Your task to perform on an android device: empty trash in google photos Image 0: 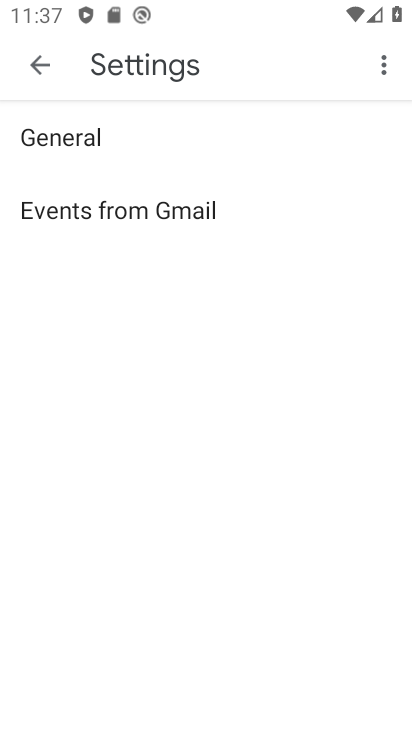
Step 0: press home button
Your task to perform on an android device: empty trash in google photos Image 1: 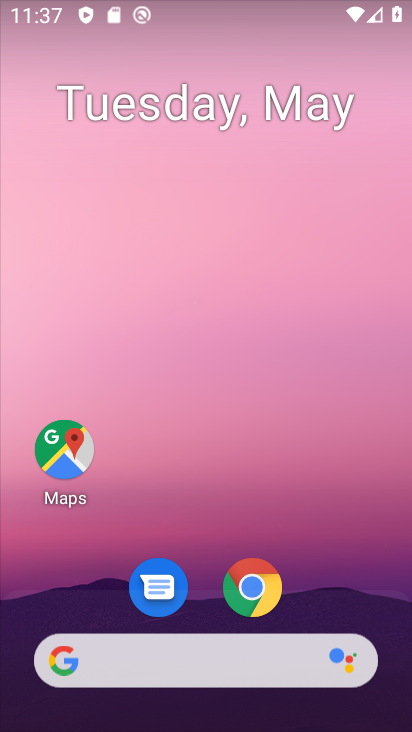
Step 1: drag from (200, 588) to (203, 9)
Your task to perform on an android device: empty trash in google photos Image 2: 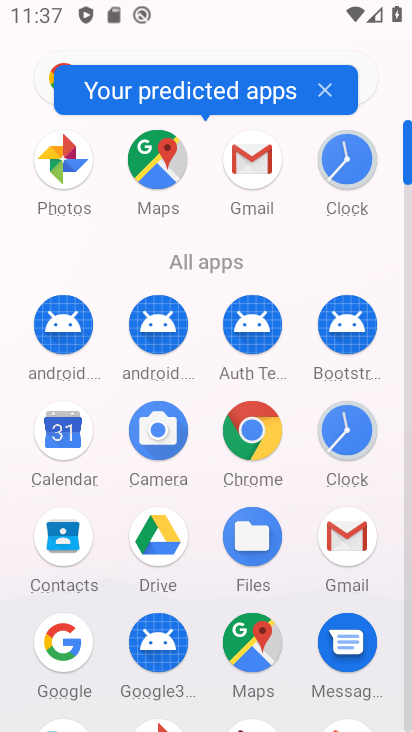
Step 2: click (60, 155)
Your task to perform on an android device: empty trash in google photos Image 3: 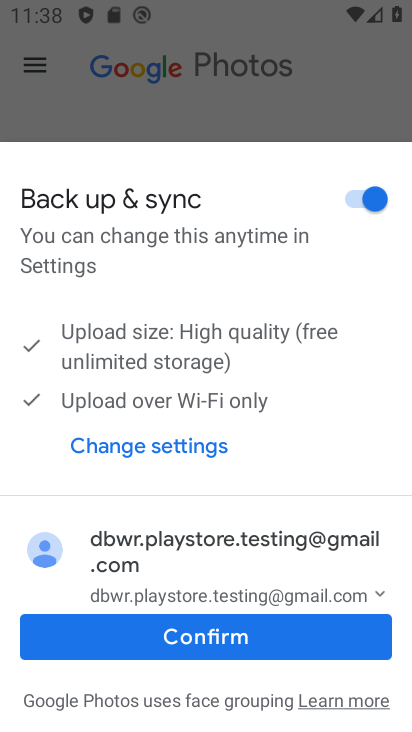
Step 3: click (159, 625)
Your task to perform on an android device: empty trash in google photos Image 4: 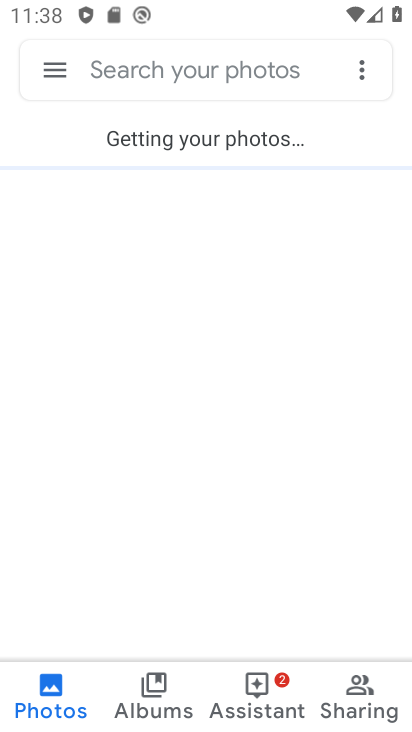
Step 4: click (45, 69)
Your task to perform on an android device: empty trash in google photos Image 5: 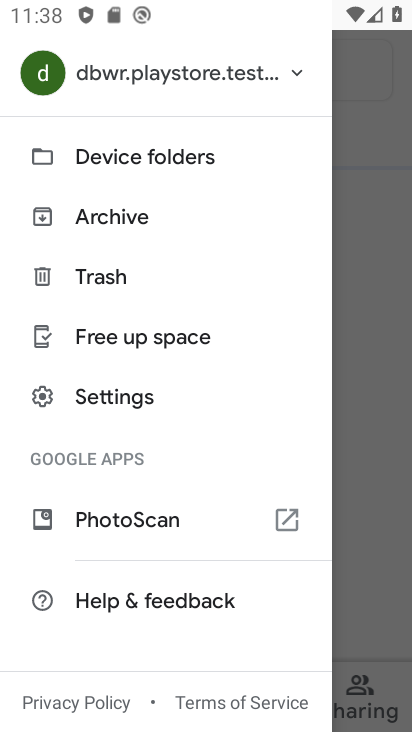
Step 5: click (136, 282)
Your task to perform on an android device: empty trash in google photos Image 6: 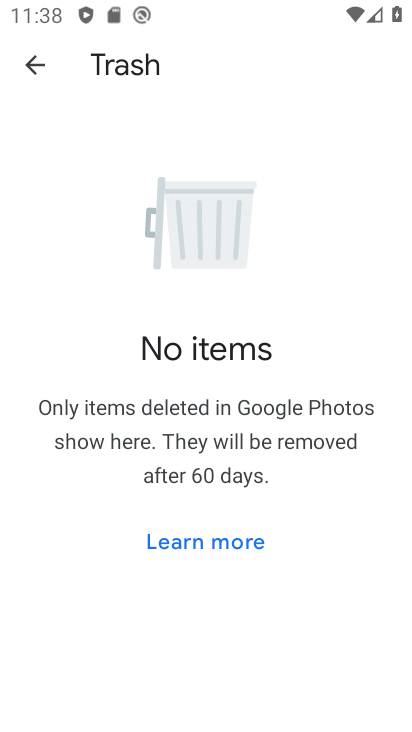
Step 6: task complete